Your task to perform on an android device: change your default location settings in chrome Image 0: 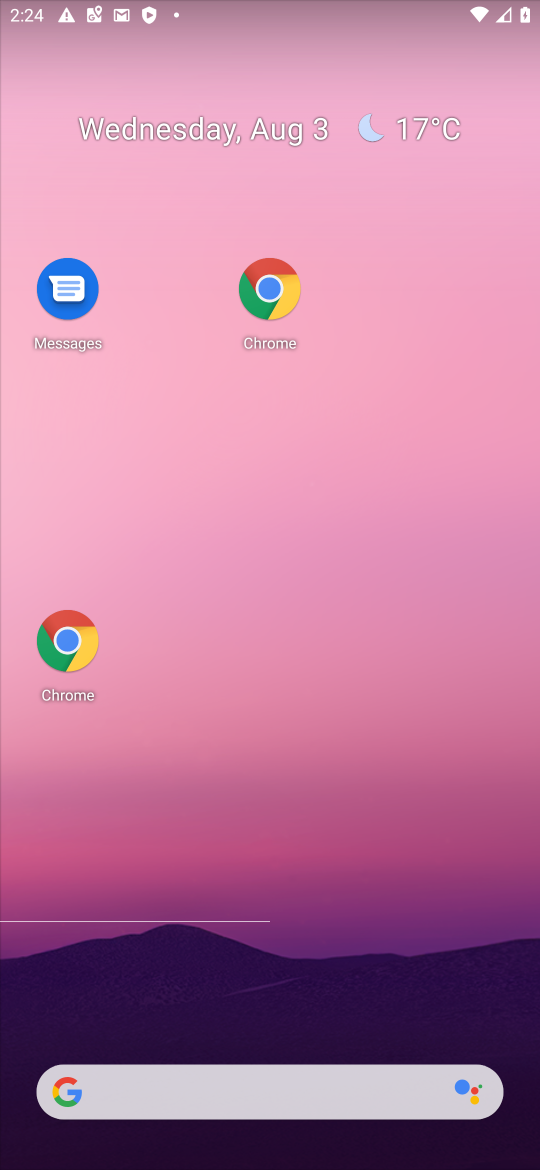
Step 0: click (289, 1083)
Your task to perform on an android device: change your default location settings in chrome Image 1: 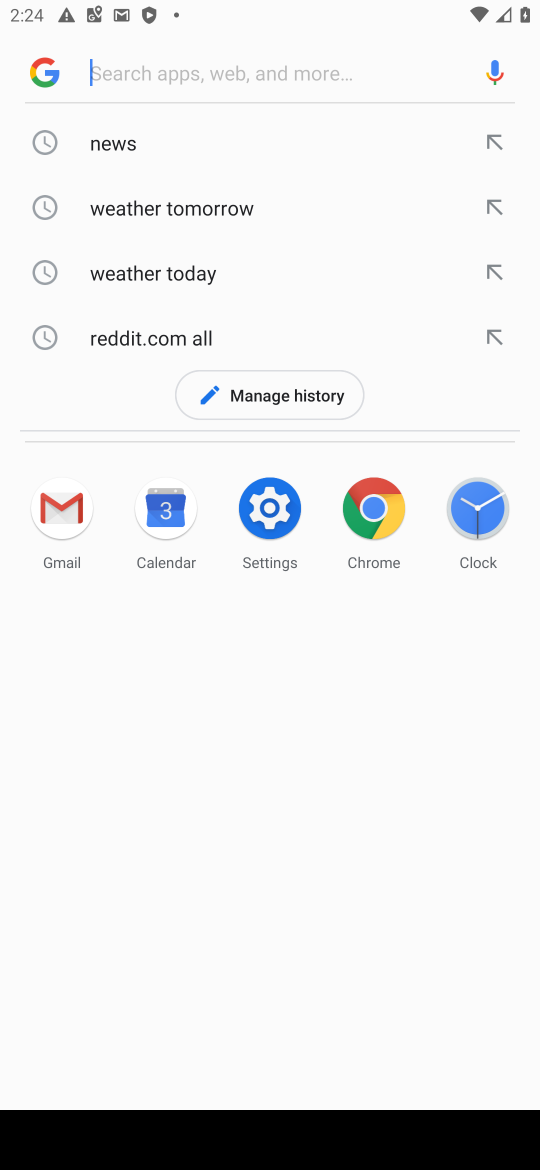
Step 1: press home button
Your task to perform on an android device: change your default location settings in chrome Image 2: 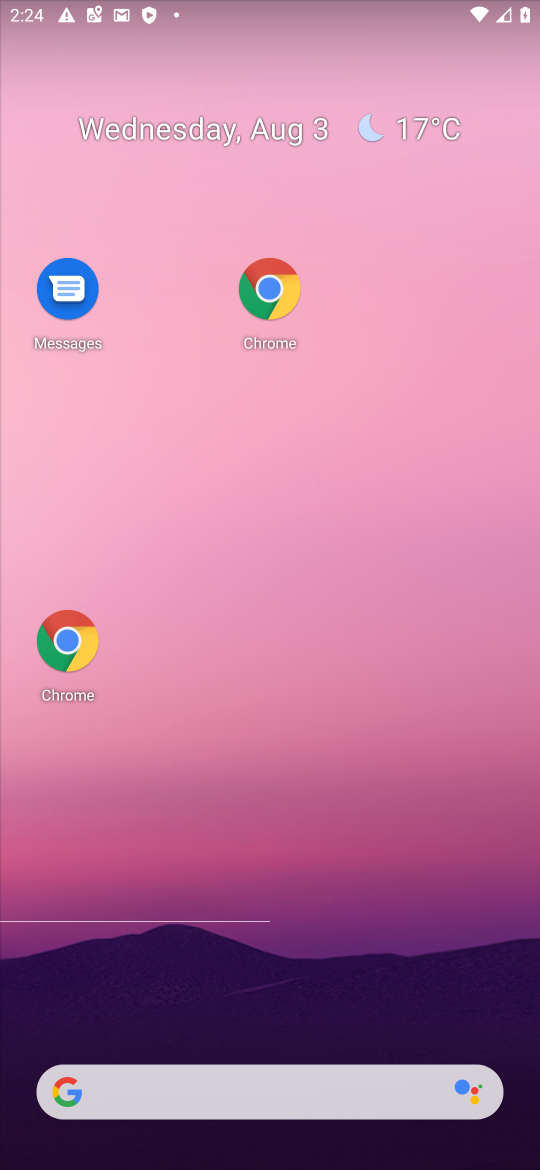
Step 2: click (46, 651)
Your task to perform on an android device: change your default location settings in chrome Image 3: 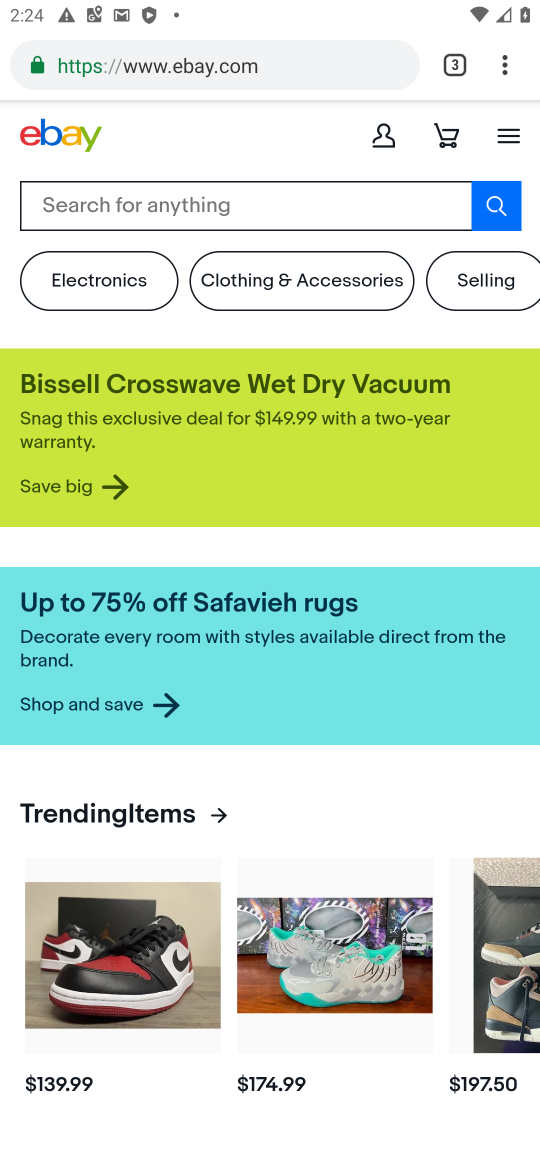
Step 3: click (513, 71)
Your task to perform on an android device: change your default location settings in chrome Image 4: 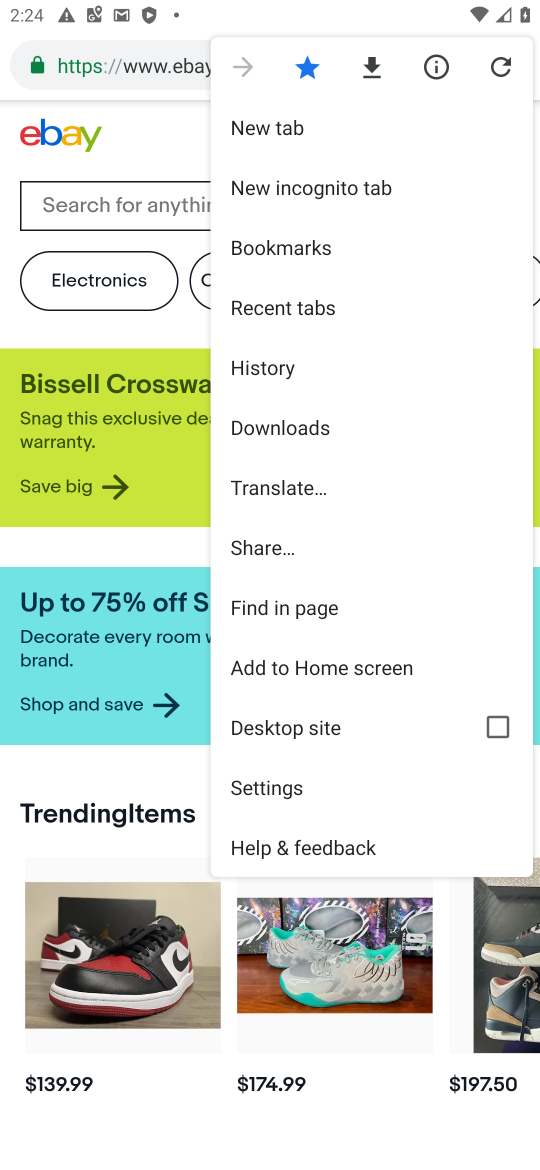
Step 4: click (336, 780)
Your task to perform on an android device: change your default location settings in chrome Image 5: 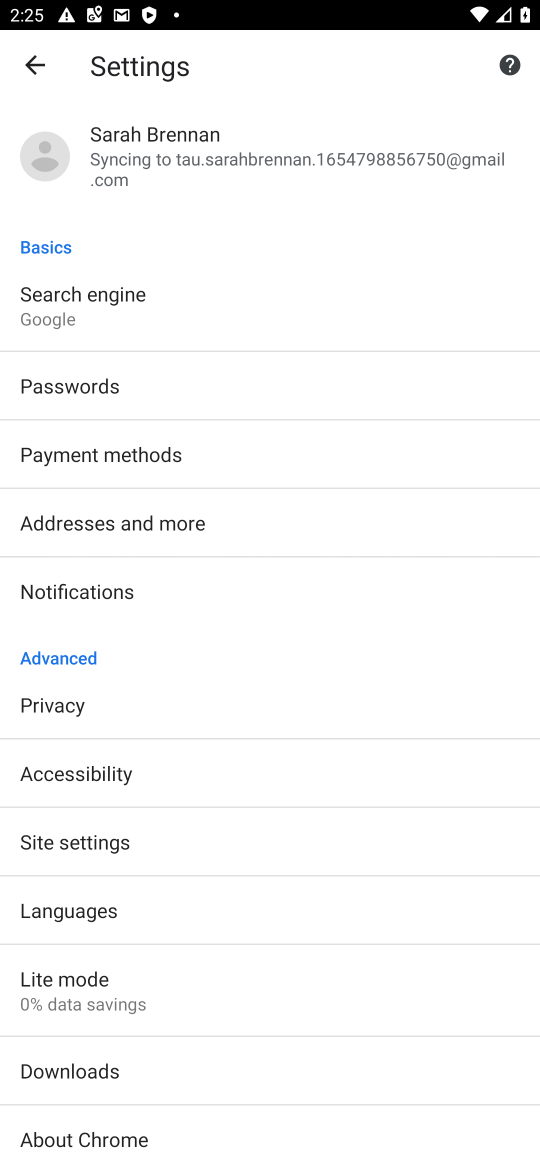
Step 5: click (76, 534)
Your task to perform on an android device: change your default location settings in chrome Image 6: 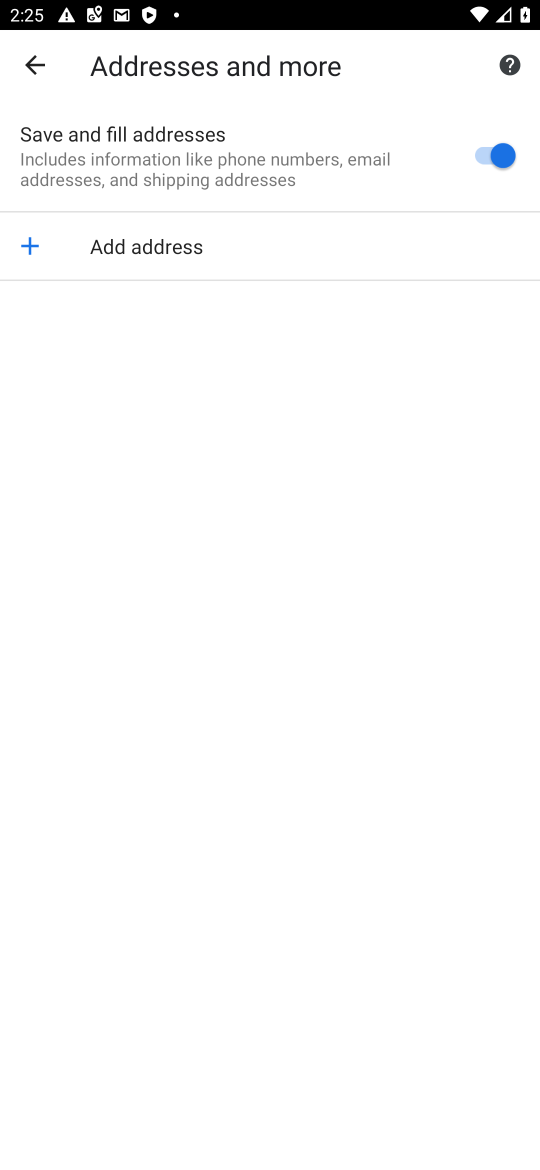
Step 6: task complete